Your task to perform on an android device: What's the weather? Image 0: 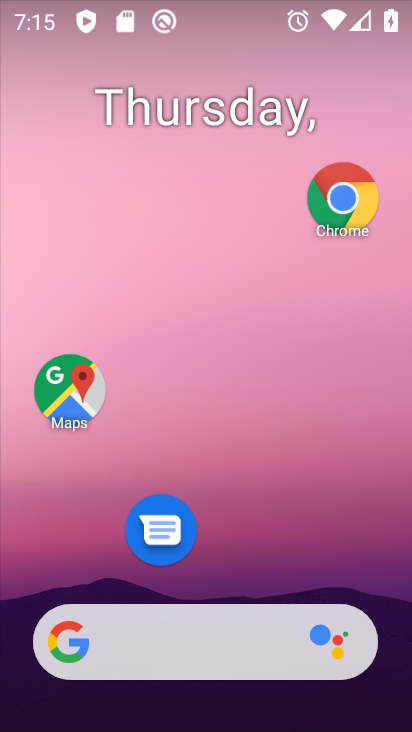
Step 0: drag from (292, 692) to (260, 203)
Your task to perform on an android device: What's the weather? Image 1: 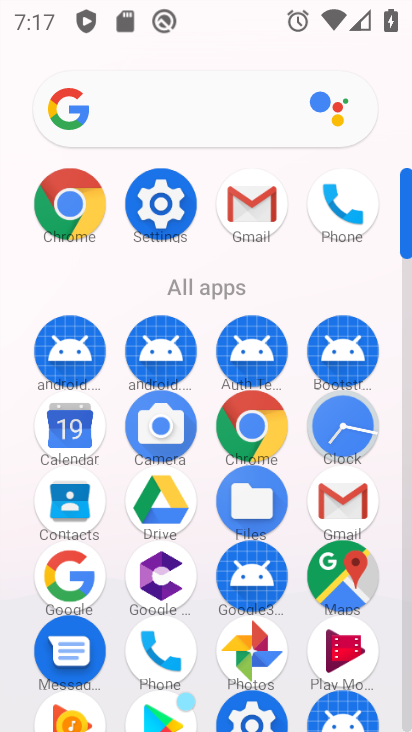
Step 1: click (162, 110)
Your task to perform on an android device: What's the weather? Image 2: 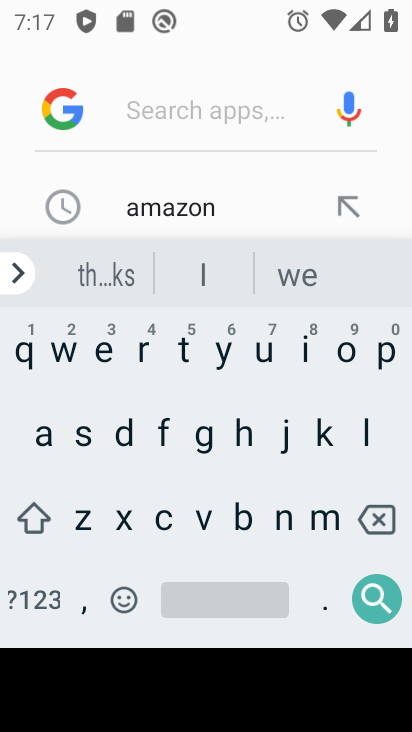
Step 2: click (47, 342)
Your task to perform on an android device: What's the weather? Image 3: 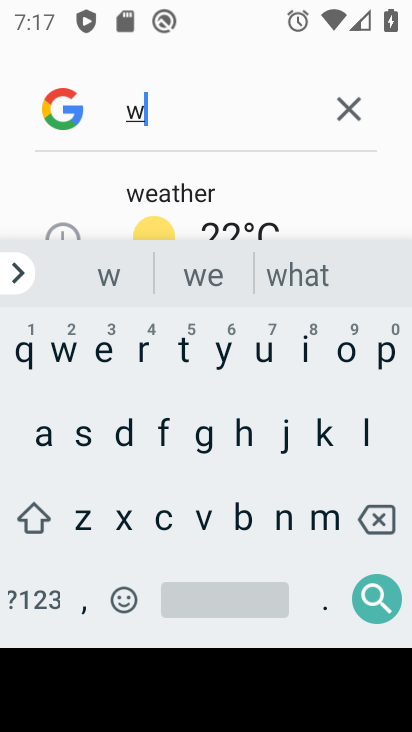
Step 3: click (234, 433)
Your task to perform on an android device: What's the weather? Image 4: 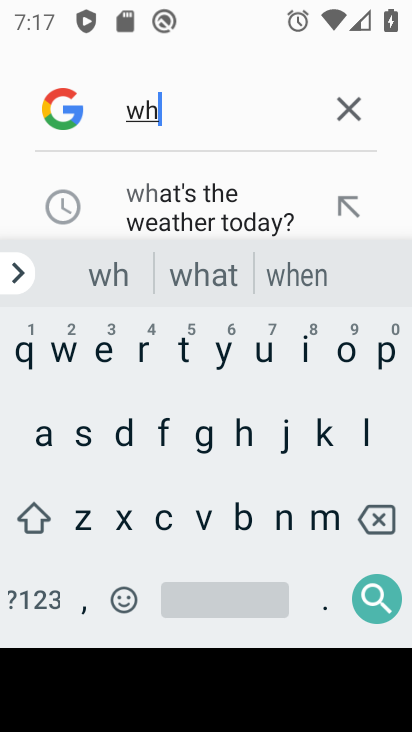
Step 4: click (106, 353)
Your task to perform on an android device: What's the weather? Image 5: 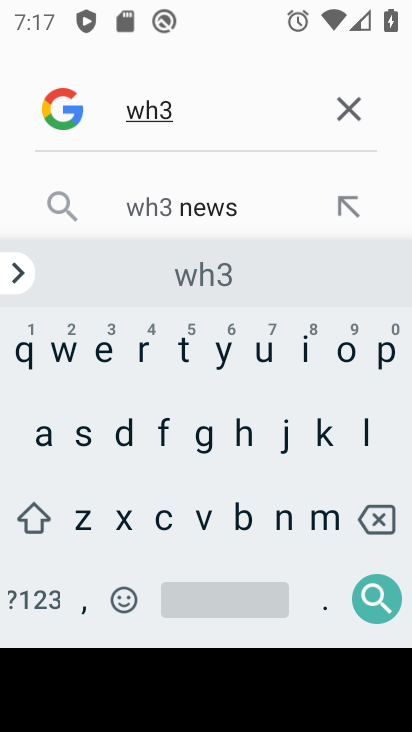
Step 5: click (386, 520)
Your task to perform on an android device: What's the weather? Image 6: 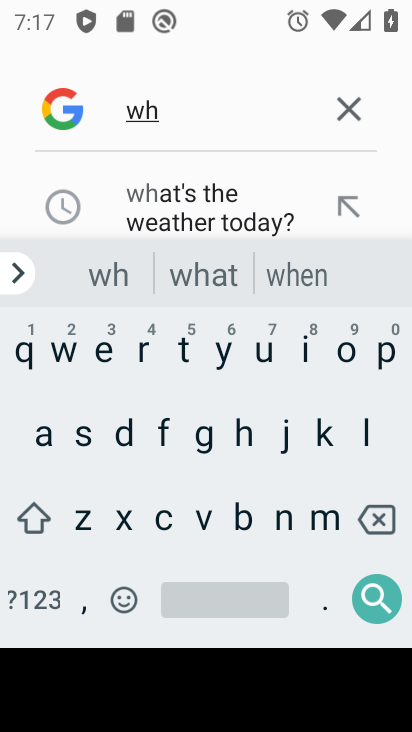
Step 6: click (101, 358)
Your task to perform on an android device: What's the weather? Image 7: 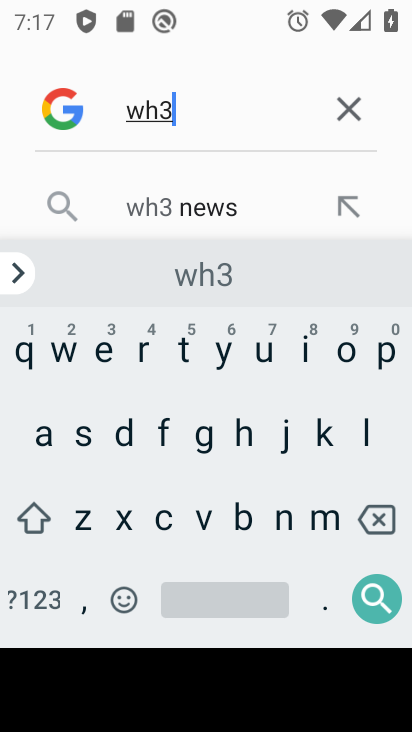
Step 7: click (392, 523)
Your task to perform on an android device: What's the weather? Image 8: 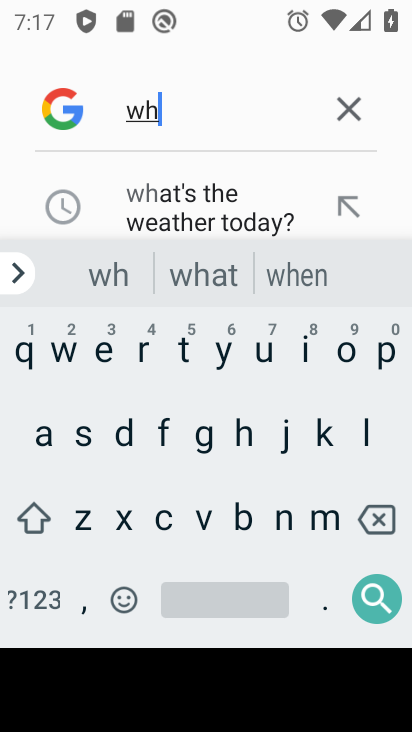
Step 8: click (388, 527)
Your task to perform on an android device: What's the weather? Image 9: 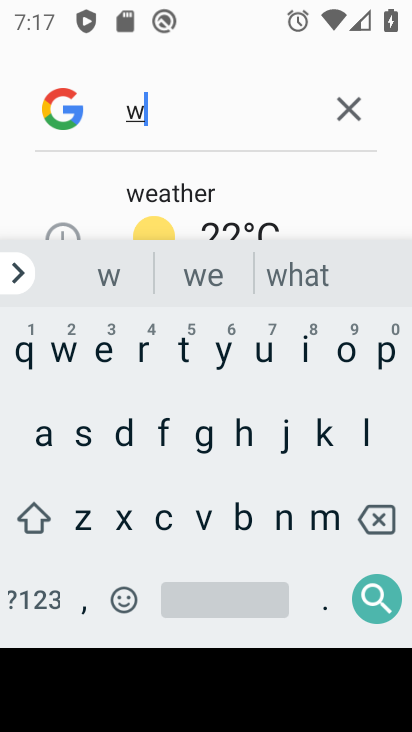
Step 9: click (195, 202)
Your task to perform on an android device: What's the weather? Image 10: 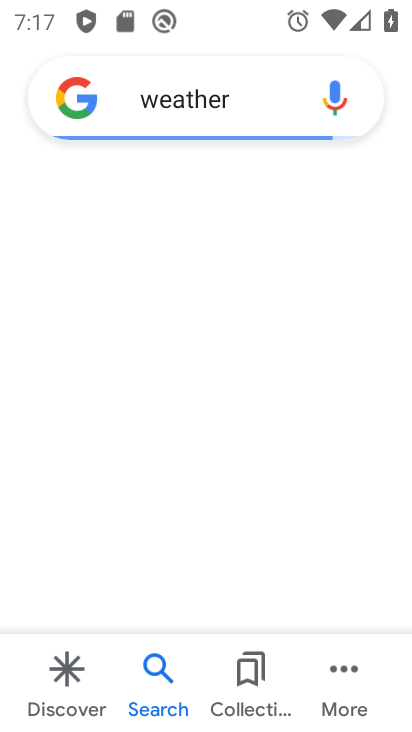
Step 10: task complete